Your task to perform on an android device: turn on wifi Image 0: 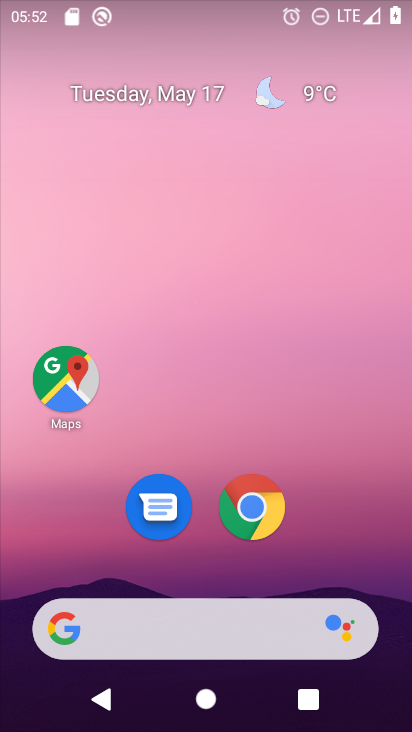
Step 0: drag from (302, 473) to (214, 50)
Your task to perform on an android device: turn on wifi Image 1: 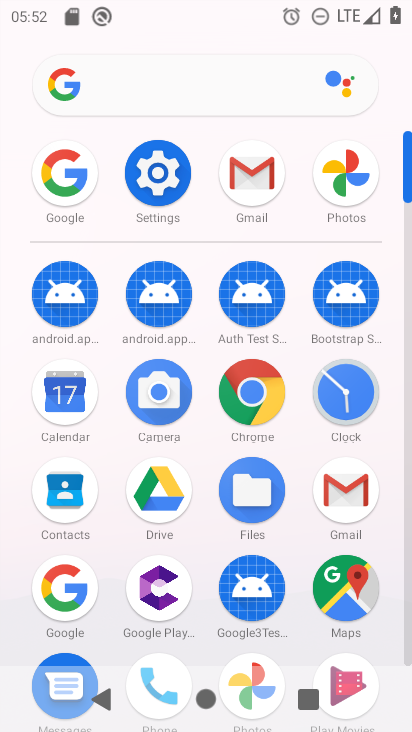
Step 1: click (157, 192)
Your task to perform on an android device: turn on wifi Image 2: 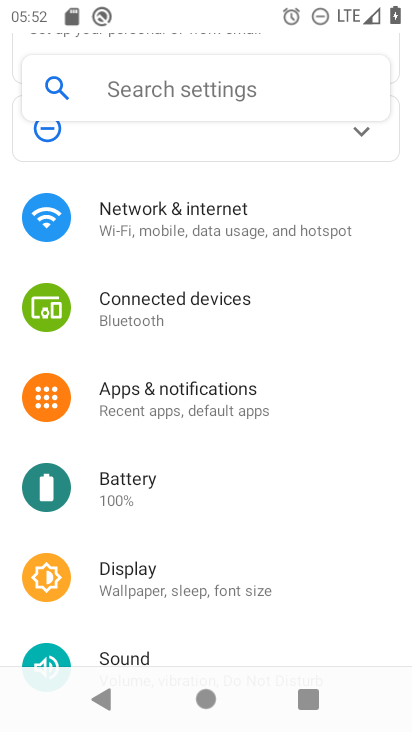
Step 2: click (208, 220)
Your task to perform on an android device: turn on wifi Image 3: 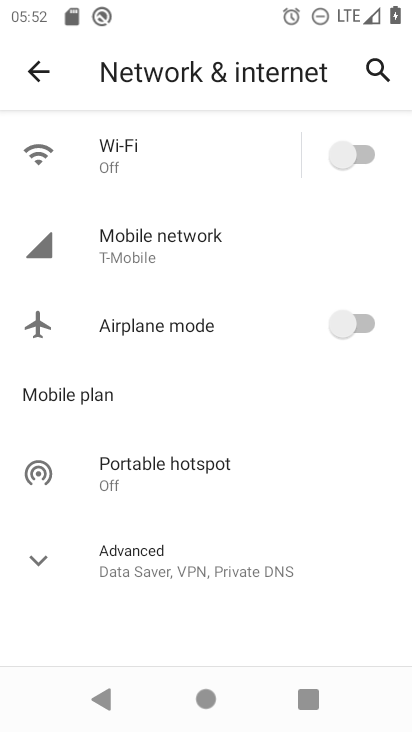
Step 3: click (186, 167)
Your task to perform on an android device: turn on wifi Image 4: 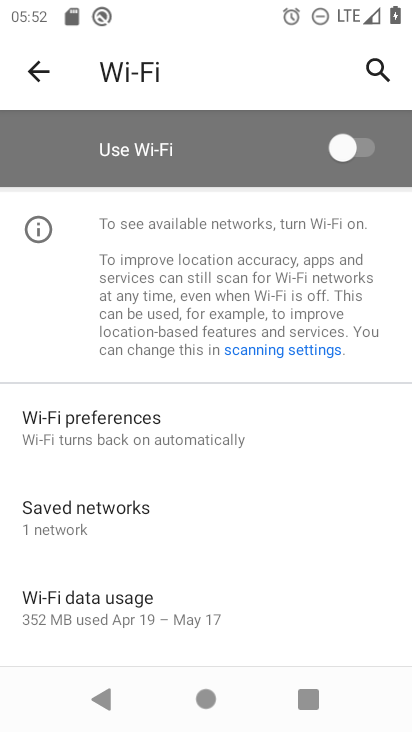
Step 4: click (331, 151)
Your task to perform on an android device: turn on wifi Image 5: 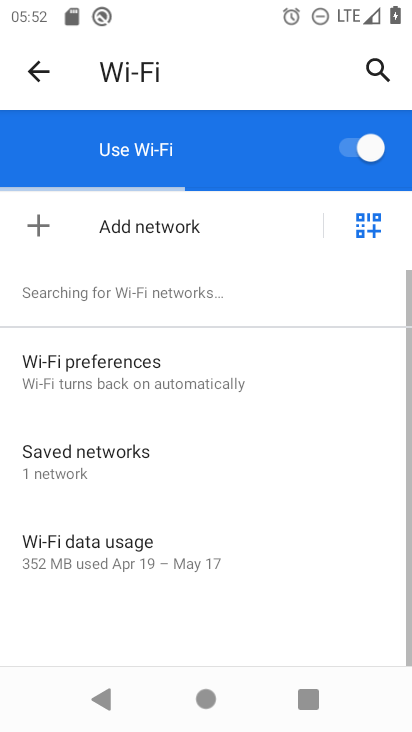
Step 5: task complete